Your task to perform on an android device: Open privacy settings Image 0: 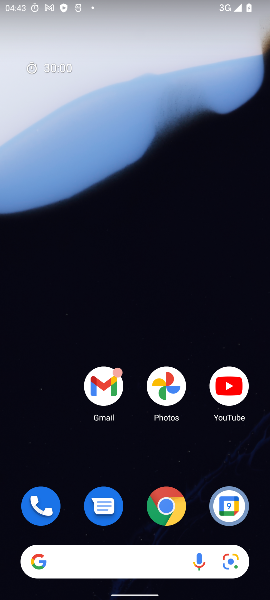
Step 0: drag from (160, 397) to (178, 41)
Your task to perform on an android device: Open privacy settings Image 1: 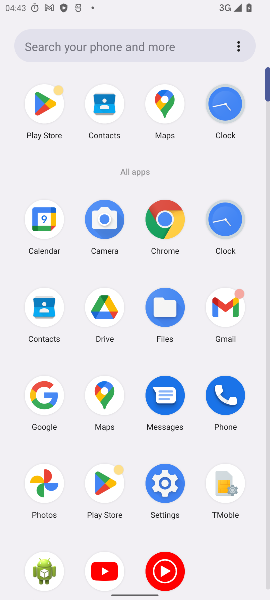
Step 1: click (157, 487)
Your task to perform on an android device: Open privacy settings Image 2: 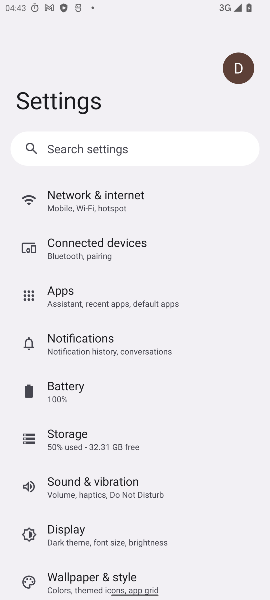
Step 2: drag from (113, 517) to (134, 218)
Your task to perform on an android device: Open privacy settings Image 3: 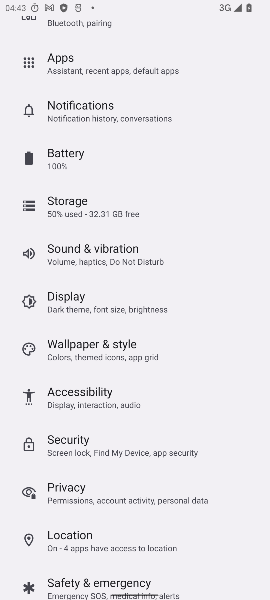
Step 3: click (66, 498)
Your task to perform on an android device: Open privacy settings Image 4: 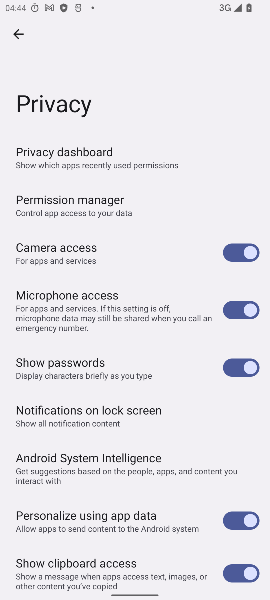
Step 4: task complete